Your task to perform on an android device: Open Chrome and go to the settings page Image 0: 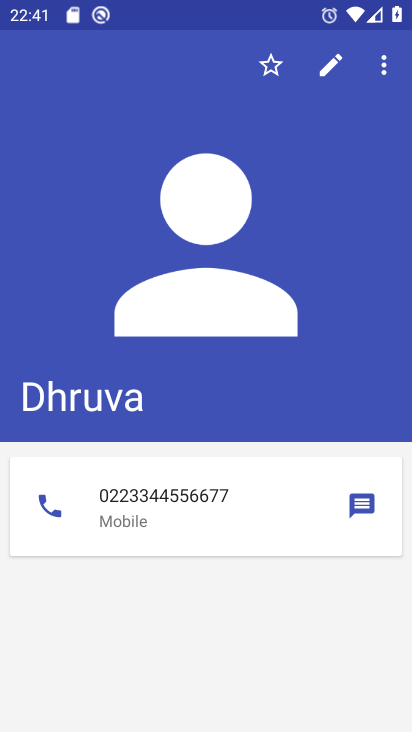
Step 0: press home button
Your task to perform on an android device: Open Chrome and go to the settings page Image 1: 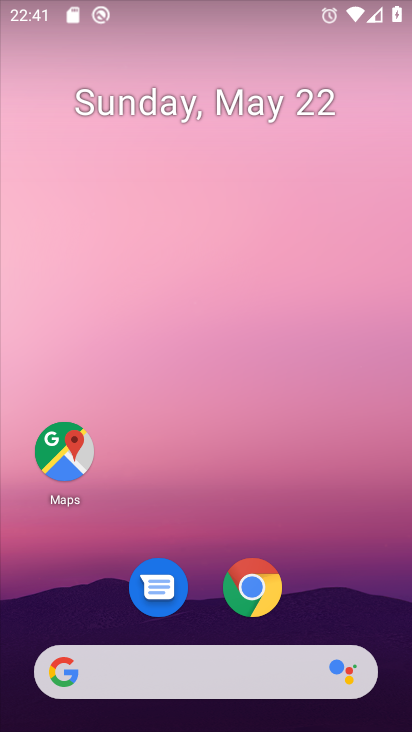
Step 1: click (239, 580)
Your task to perform on an android device: Open Chrome and go to the settings page Image 2: 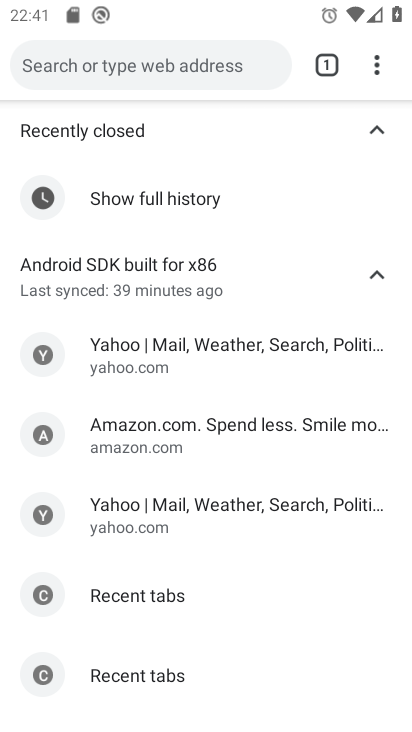
Step 2: click (374, 65)
Your task to perform on an android device: Open Chrome and go to the settings page Image 3: 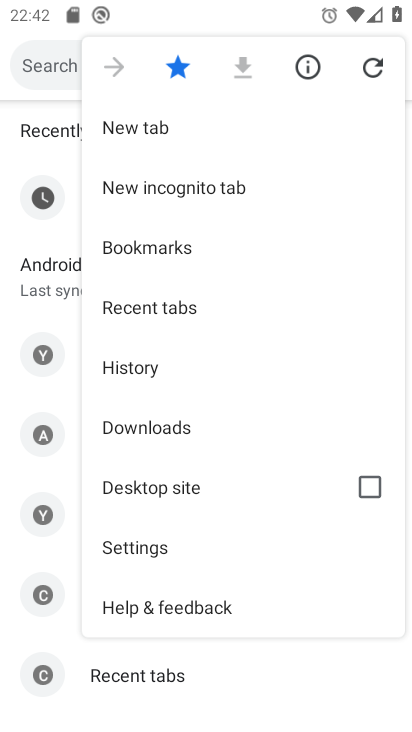
Step 3: click (174, 537)
Your task to perform on an android device: Open Chrome and go to the settings page Image 4: 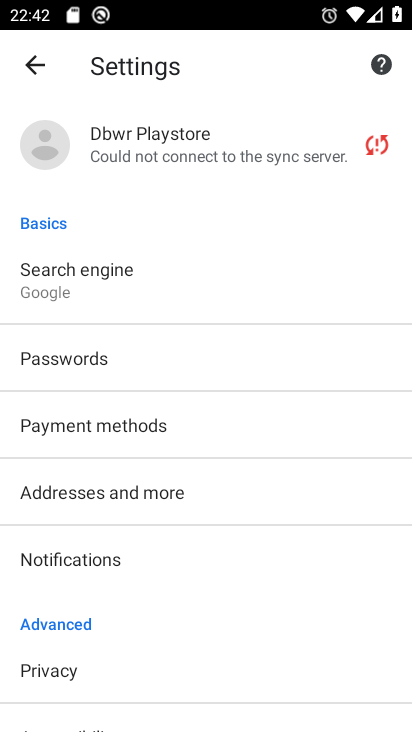
Step 4: task complete